Your task to perform on an android device: see sites visited before in the chrome app Image 0: 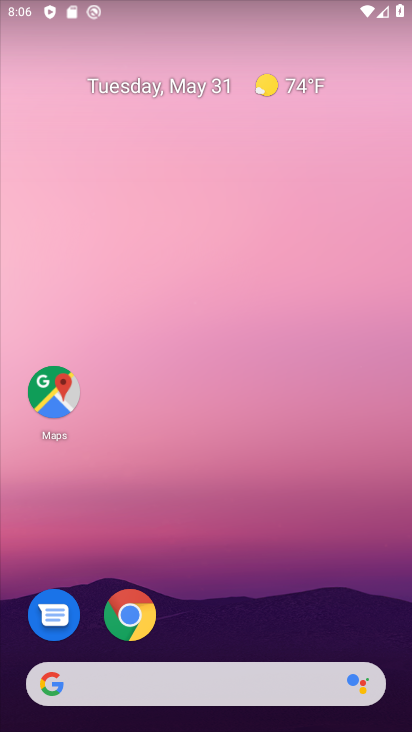
Step 0: click (137, 629)
Your task to perform on an android device: see sites visited before in the chrome app Image 1: 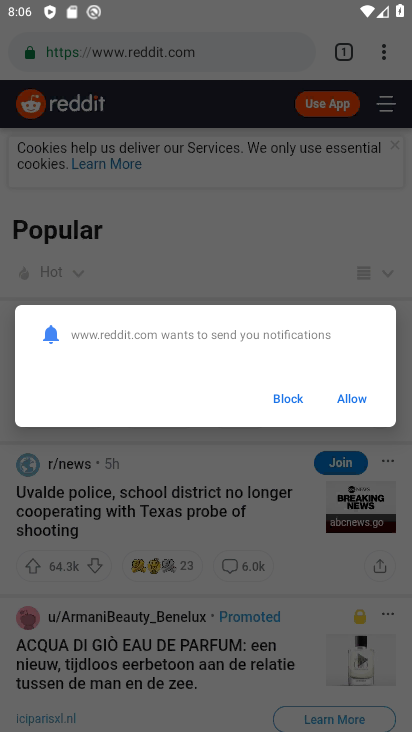
Step 1: click (350, 403)
Your task to perform on an android device: see sites visited before in the chrome app Image 2: 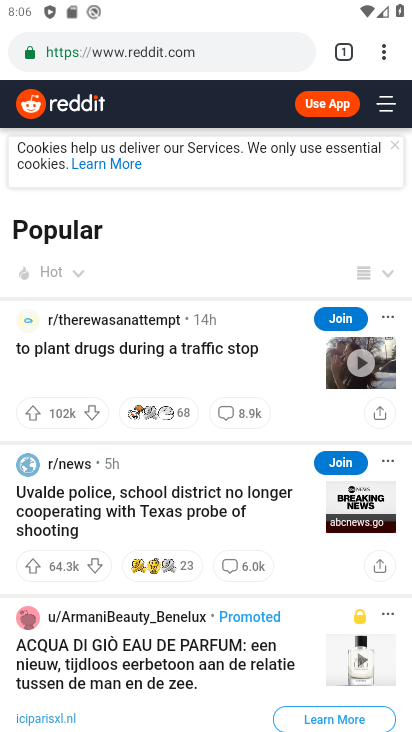
Step 2: task complete